Your task to perform on an android device: turn vacation reply on in the gmail app Image 0: 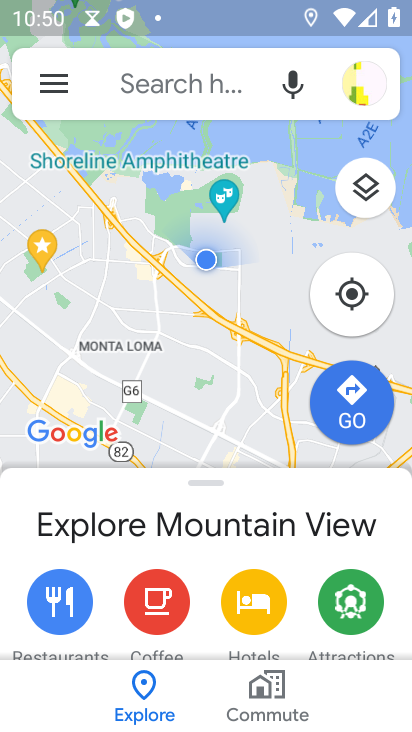
Step 0: press home button
Your task to perform on an android device: turn vacation reply on in the gmail app Image 1: 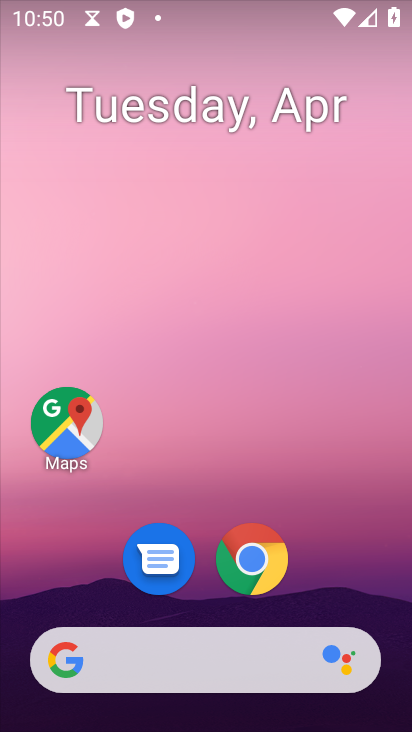
Step 1: drag from (332, 581) to (218, 73)
Your task to perform on an android device: turn vacation reply on in the gmail app Image 2: 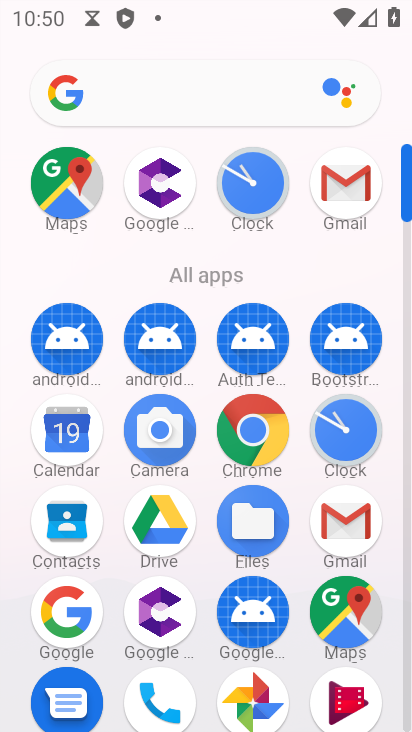
Step 2: click (345, 194)
Your task to perform on an android device: turn vacation reply on in the gmail app Image 3: 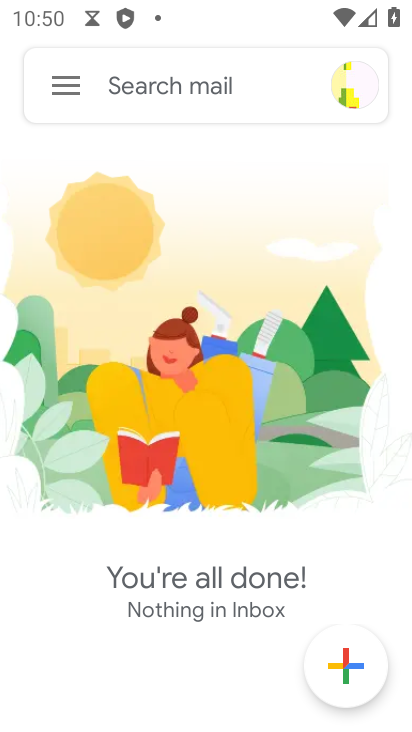
Step 3: click (63, 74)
Your task to perform on an android device: turn vacation reply on in the gmail app Image 4: 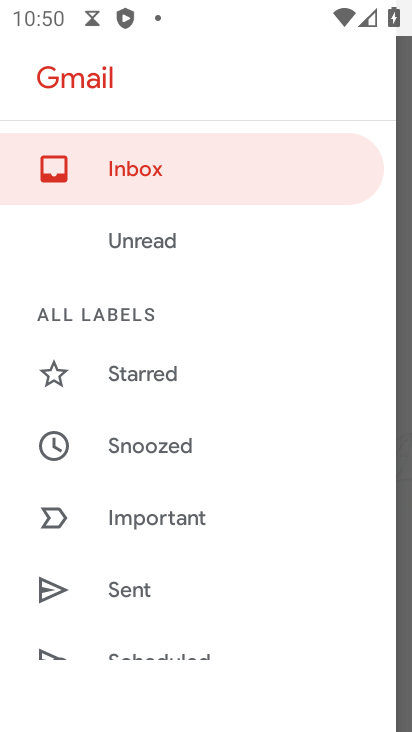
Step 4: drag from (233, 603) to (195, 156)
Your task to perform on an android device: turn vacation reply on in the gmail app Image 5: 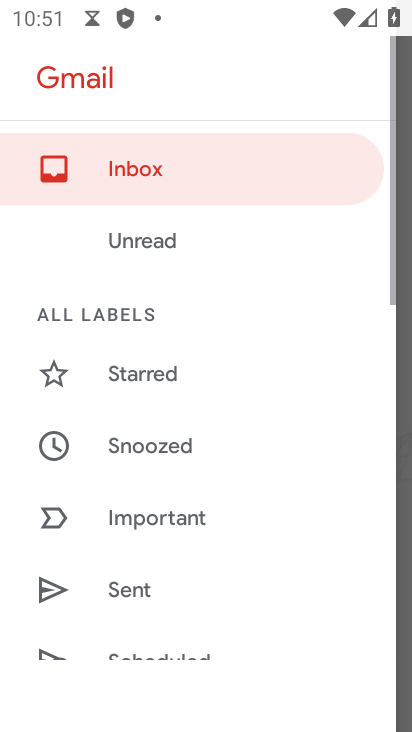
Step 5: drag from (233, 607) to (285, 117)
Your task to perform on an android device: turn vacation reply on in the gmail app Image 6: 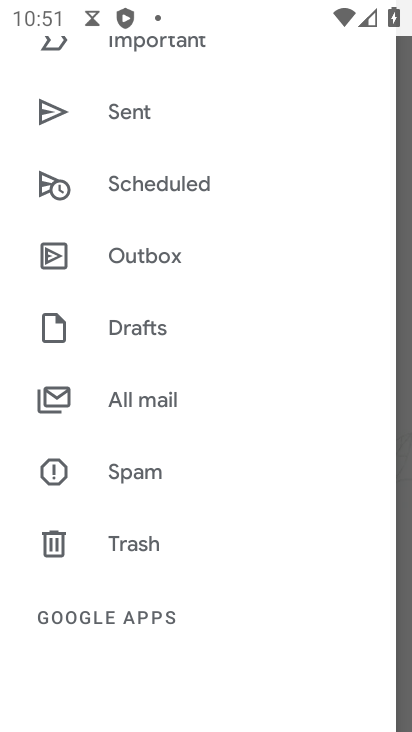
Step 6: drag from (286, 567) to (274, 97)
Your task to perform on an android device: turn vacation reply on in the gmail app Image 7: 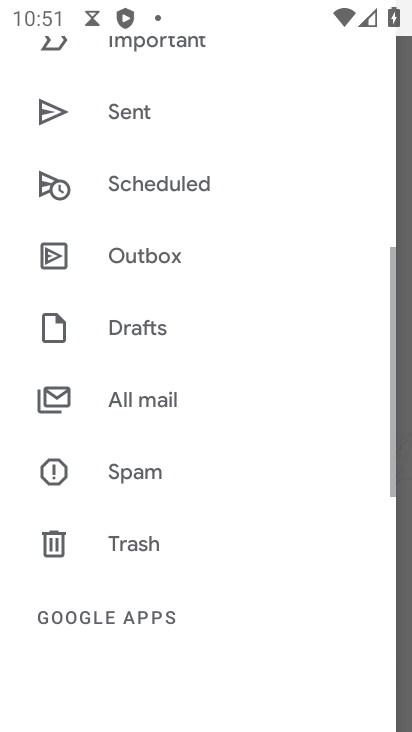
Step 7: drag from (225, 262) to (223, 189)
Your task to perform on an android device: turn vacation reply on in the gmail app Image 8: 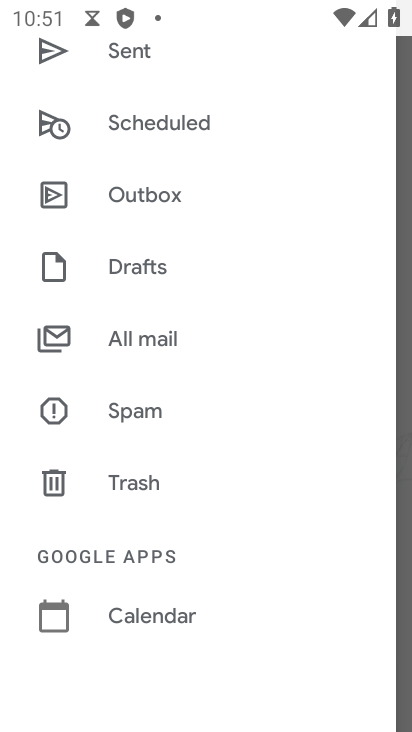
Step 8: drag from (207, 573) to (185, 176)
Your task to perform on an android device: turn vacation reply on in the gmail app Image 9: 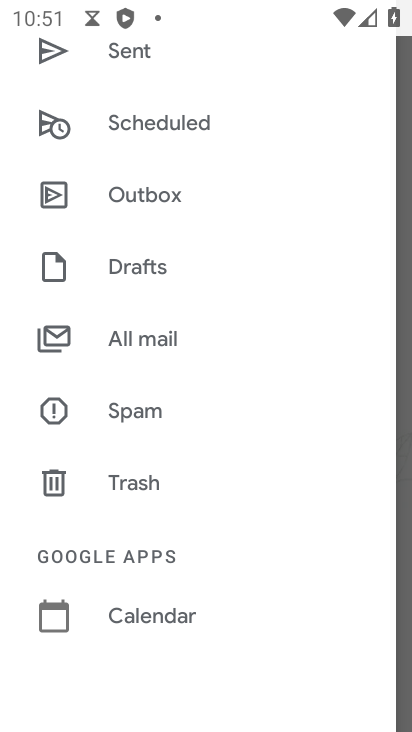
Step 9: drag from (275, 583) to (294, 37)
Your task to perform on an android device: turn vacation reply on in the gmail app Image 10: 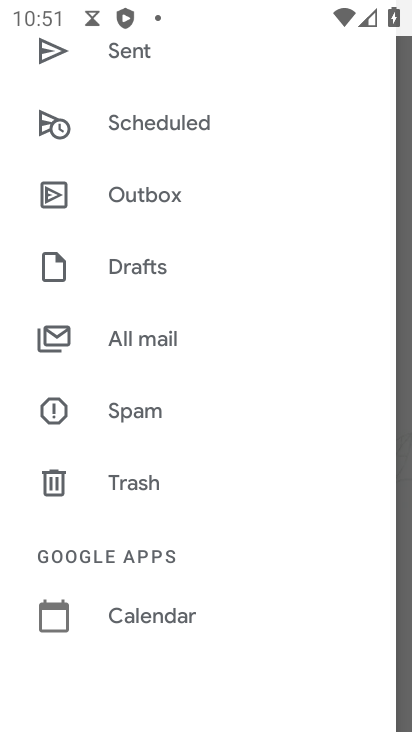
Step 10: drag from (173, 571) to (202, 30)
Your task to perform on an android device: turn vacation reply on in the gmail app Image 11: 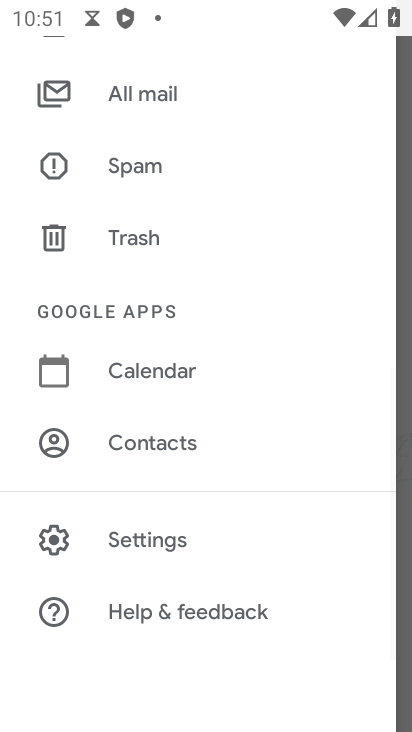
Step 11: click (167, 539)
Your task to perform on an android device: turn vacation reply on in the gmail app Image 12: 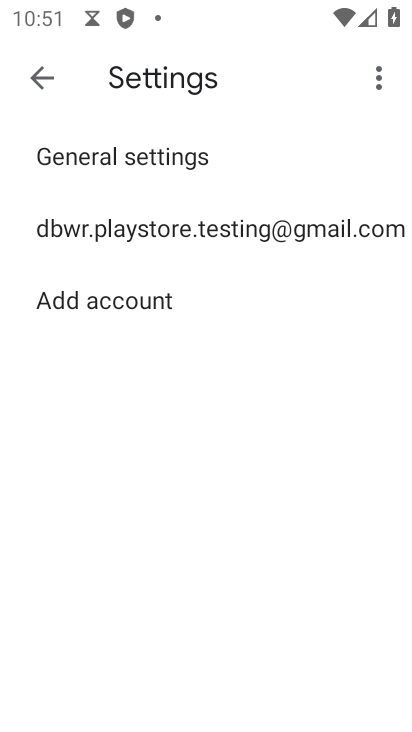
Step 12: click (194, 228)
Your task to perform on an android device: turn vacation reply on in the gmail app Image 13: 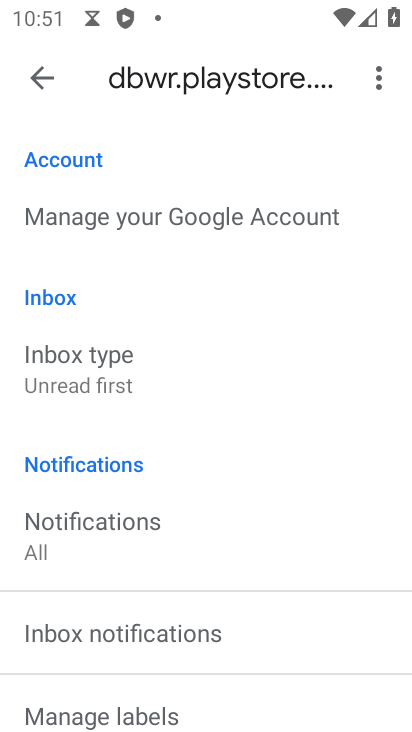
Step 13: drag from (298, 643) to (294, 98)
Your task to perform on an android device: turn vacation reply on in the gmail app Image 14: 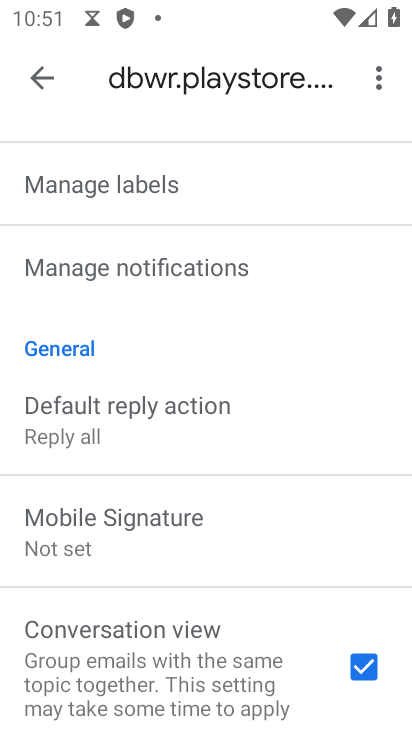
Step 14: drag from (247, 601) to (249, 74)
Your task to perform on an android device: turn vacation reply on in the gmail app Image 15: 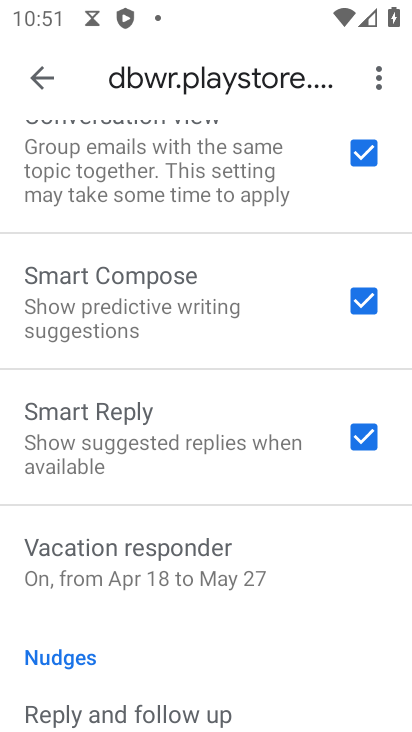
Step 15: click (179, 564)
Your task to perform on an android device: turn vacation reply on in the gmail app Image 16: 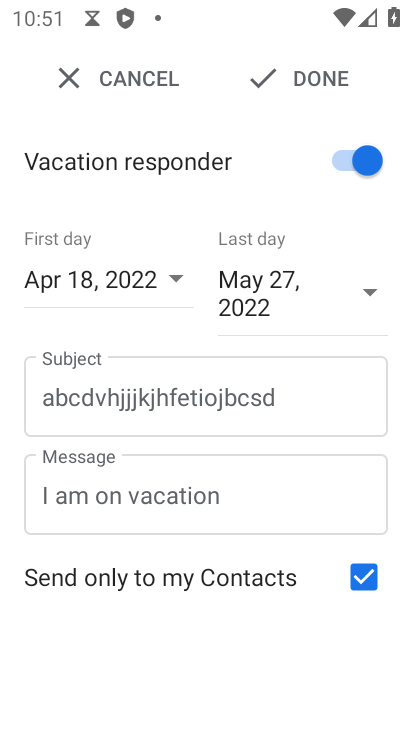
Step 16: click (303, 83)
Your task to perform on an android device: turn vacation reply on in the gmail app Image 17: 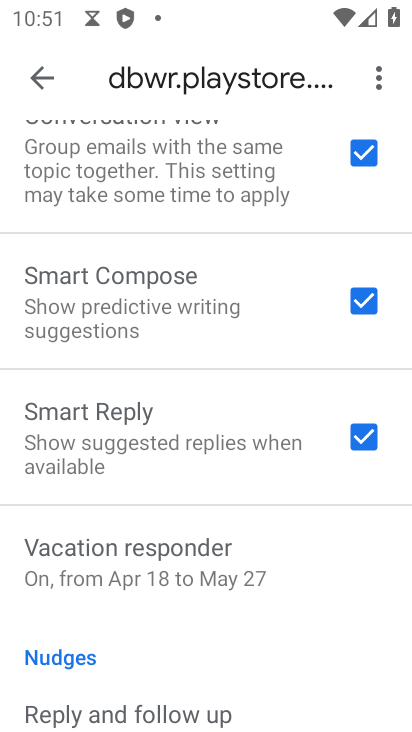
Step 17: task complete